Your task to perform on an android device: Search for "dell xps" on costco.com, select the first entry, and add it to the cart. Image 0: 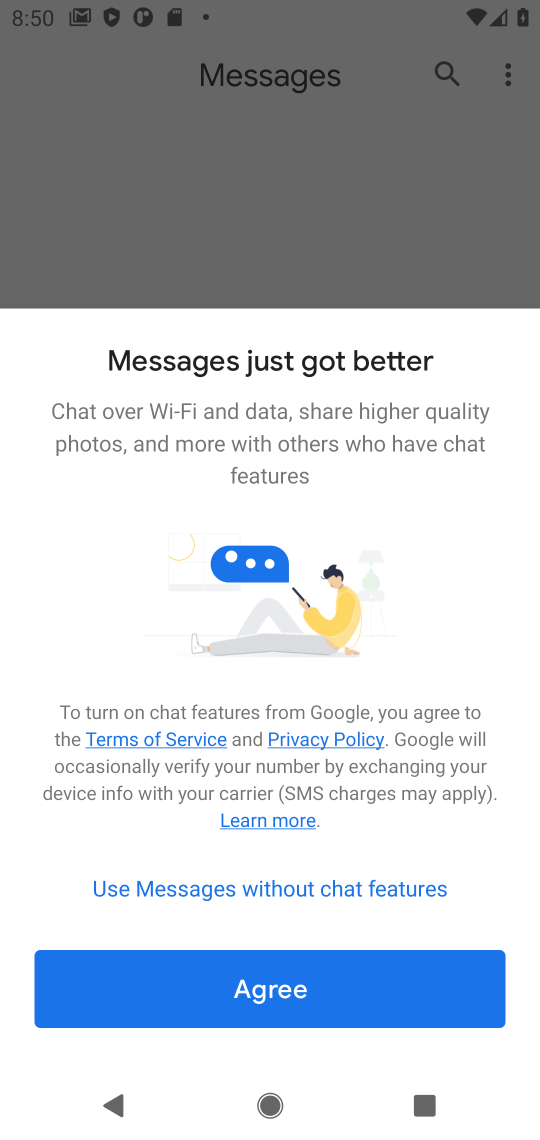
Step 0: press home button
Your task to perform on an android device: Search for "dell xps" on costco.com, select the first entry, and add it to the cart. Image 1: 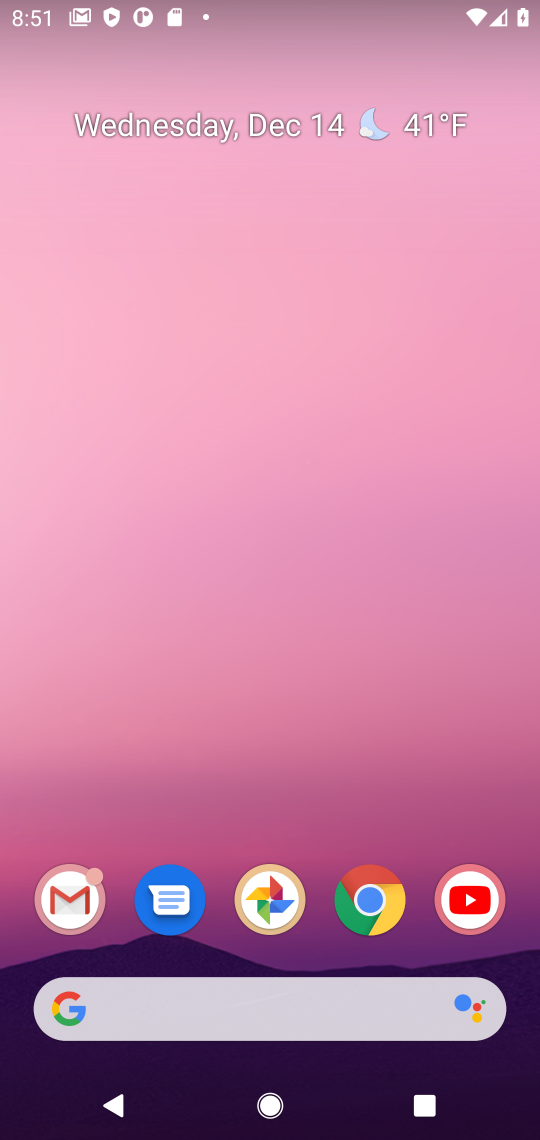
Step 1: click (377, 911)
Your task to perform on an android device: Search for "dell xps" on costco.com, select the first entry, and add it to the cart. Image 2: 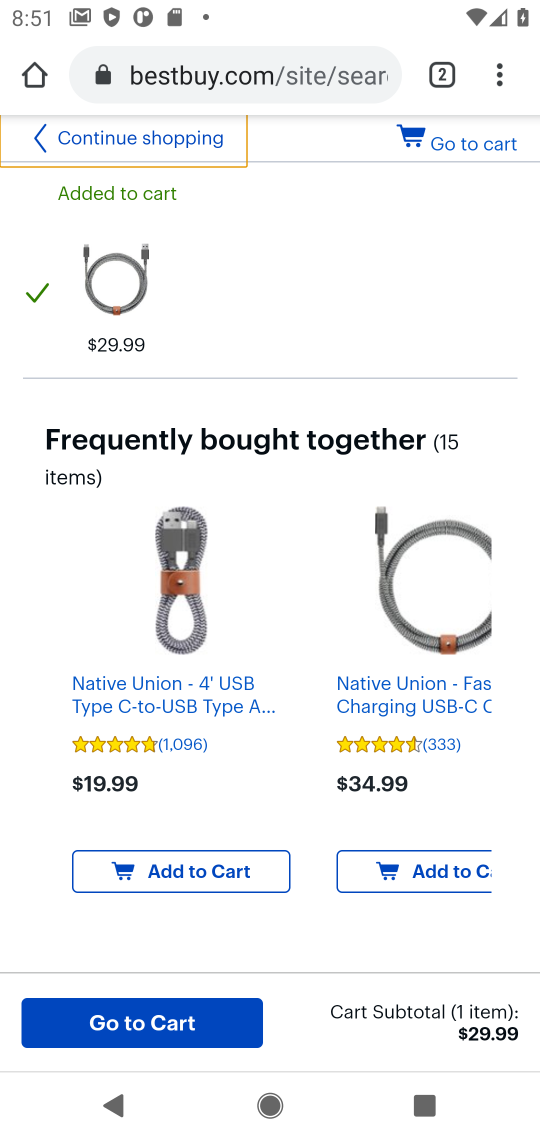
Step 2: click (225, 76)
Your task to perform on an android device: Search for "dell xps" on costco.com, select the first entry, and add it to the cart. Image 3: 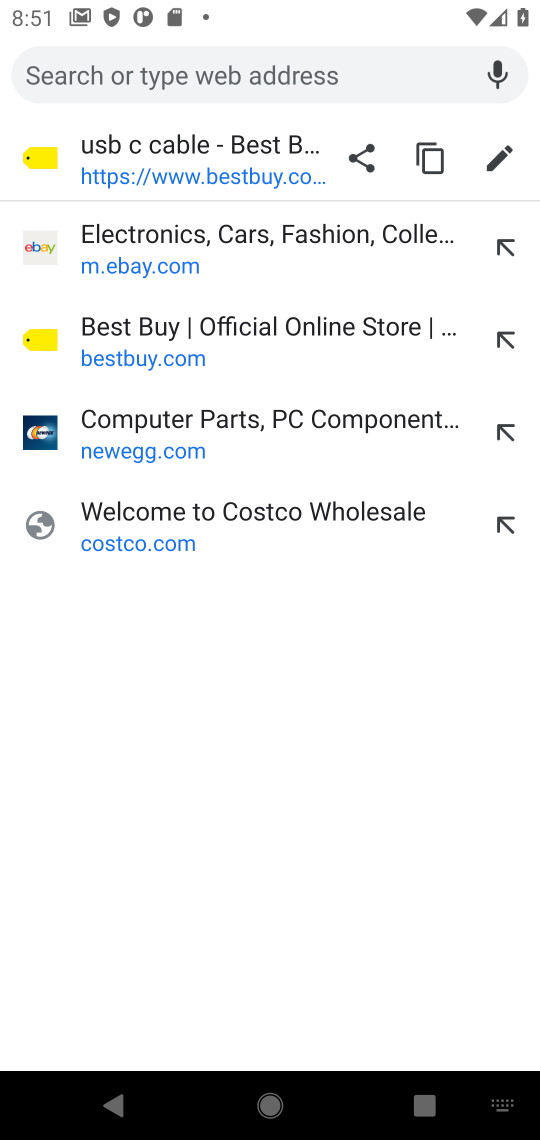
Step 3: click (104, 525)
Your task to perform on an android device: Search for "dell xps" on costco.com, select the first entry, and add it to the cart. Image 4: 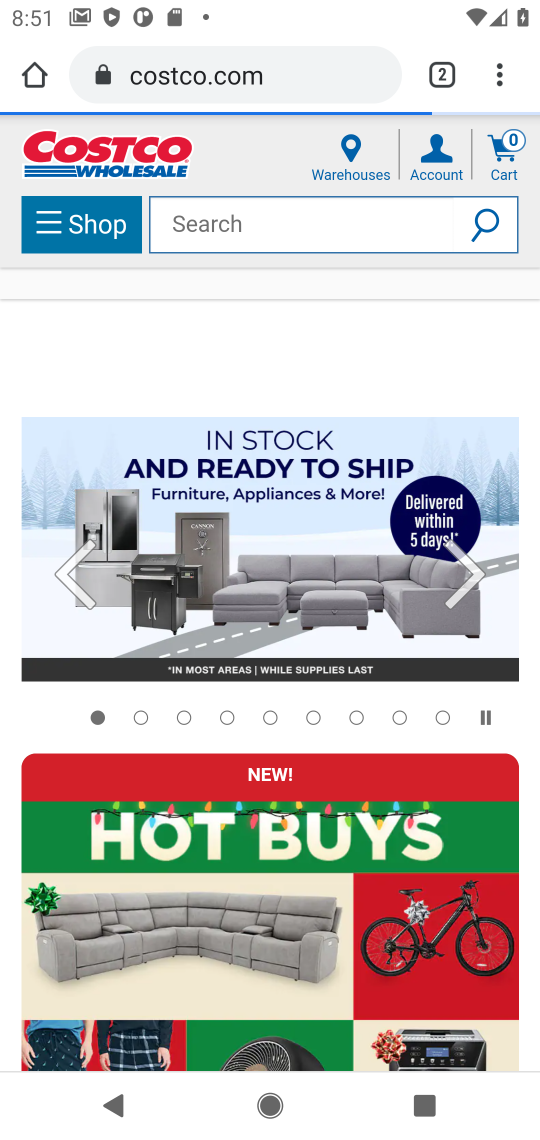
Step 4: click (234, 230)
Your task to perform on an android device: Search for "dell xps" on costco.com, select the first entry, and add it to the cart. Image 5: 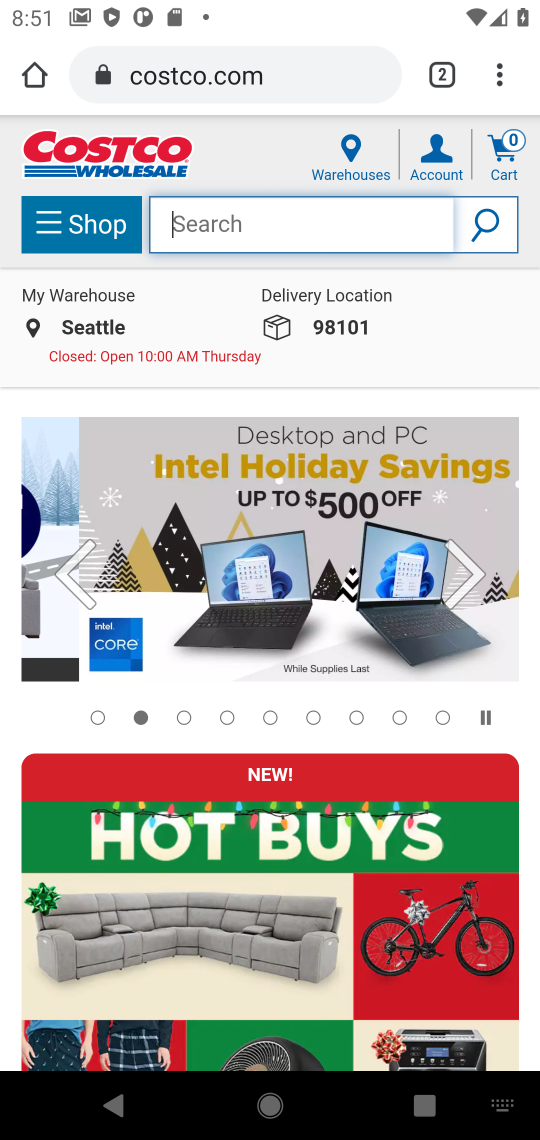
Step 5: type "dell xps"
Your task to perform on an android device: Search for "dell xps" on costco.com, select the first entry, and add it to the cart. Image 6: 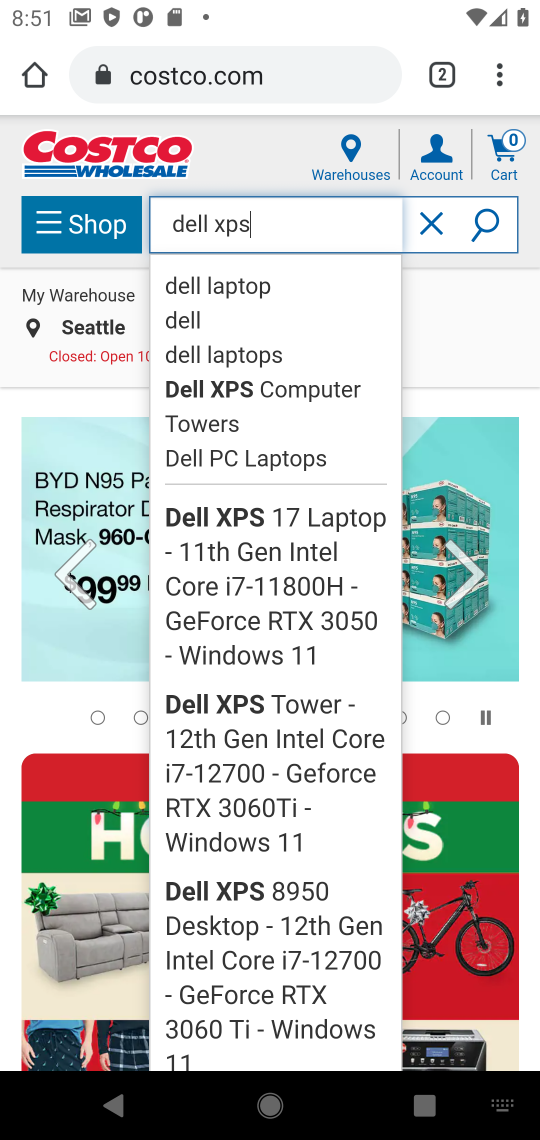
Step 6: click (478, 233)
Your task to perform on an android device: Search for "dell xps" on costco.com, select the first entry, and add it to the cart. Image 7: 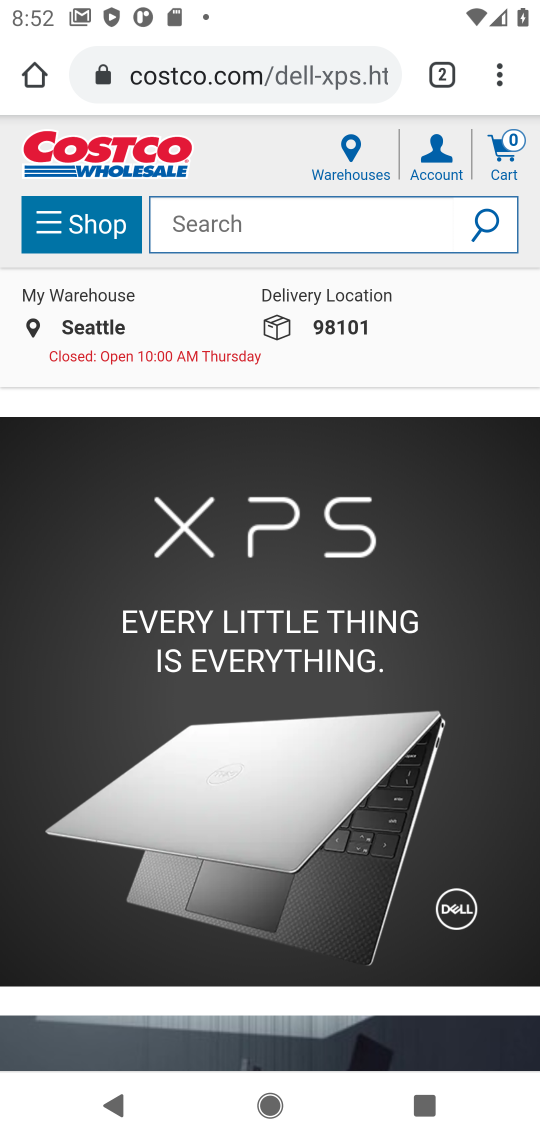
Step 7: task complete